Your task to perform on an android device: Open Google Maps and go to "Timeline" Image 0: 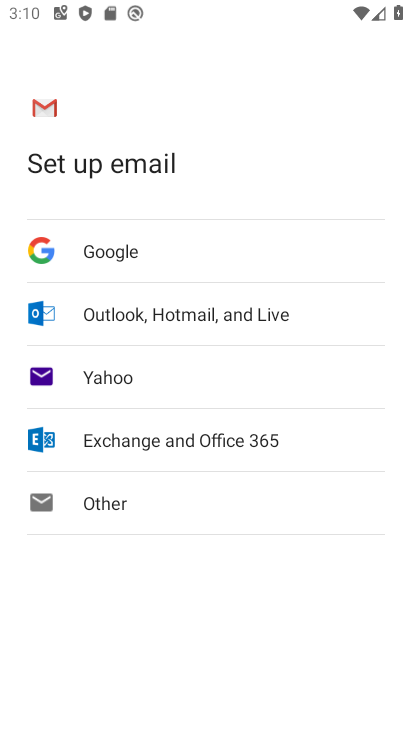
Step 0: press home button
Your task to perform on an android device: Open Google Maps and go to "Timeline" Image 1: 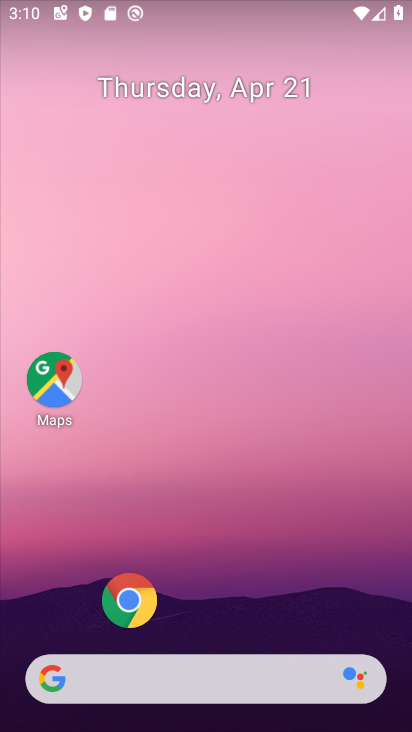
Step 1: click (51, 383)
Your task to perform on an android device: Open Google Maps and go to "Timeline" Image 2: 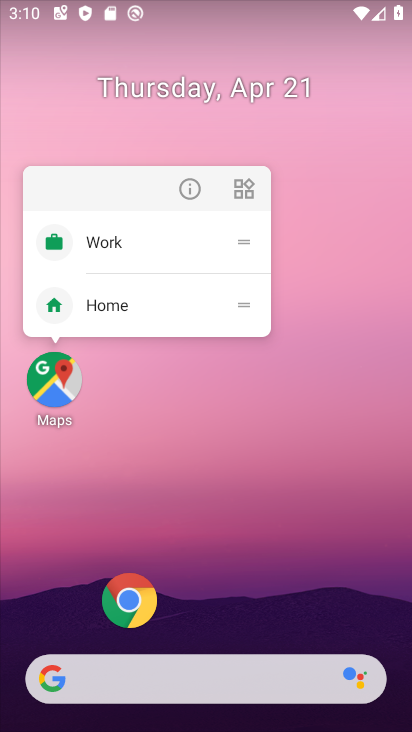
Step 2: click (51, 375)
Your task to perform on an android device: Open Google Maps and go to "Timeline" Image 3: 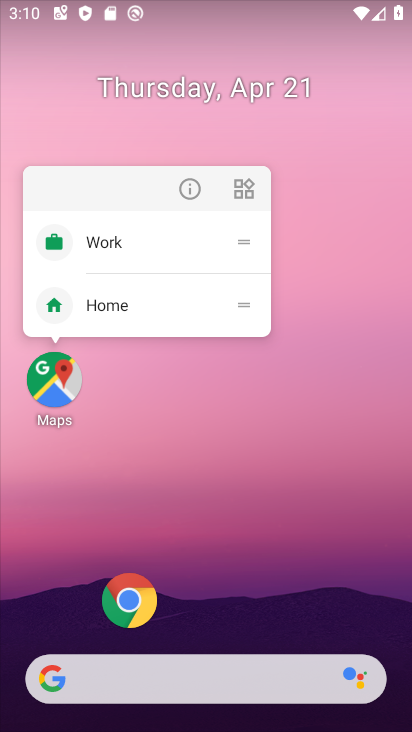
Step 3: click (186, 187)
Your task to perform on an android device: Open Google Maps and go to "Timeline" Image 4: 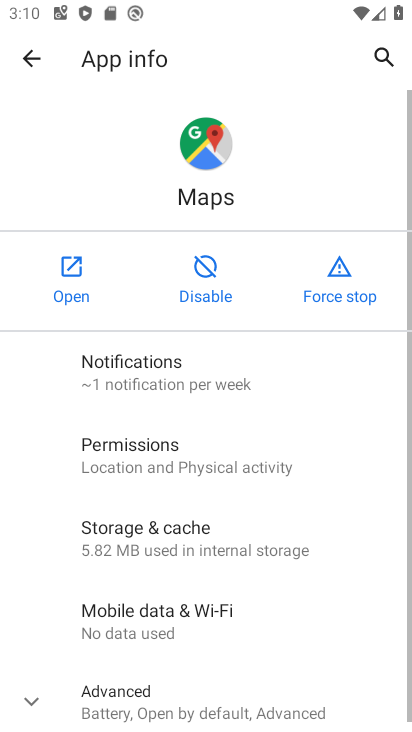
Step 4: click (72, 271)
Your task to perform on an android device: Open Google Maps and go to "Timeline" Image 5: 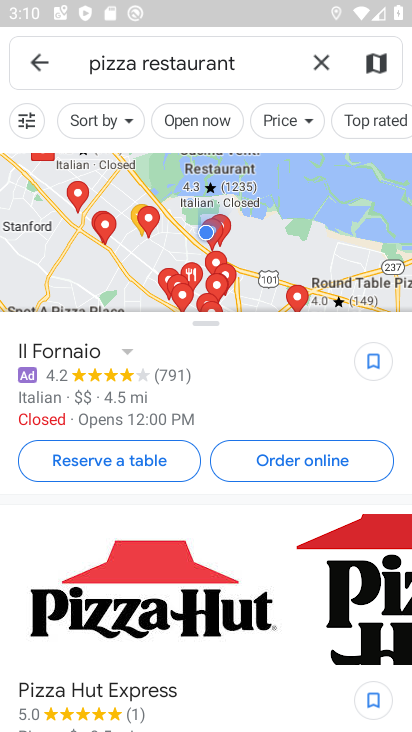
Step 5: click (321, 64)
Your task to perform on an android device: Open Google Maps and go to "Timeline" Image 6: 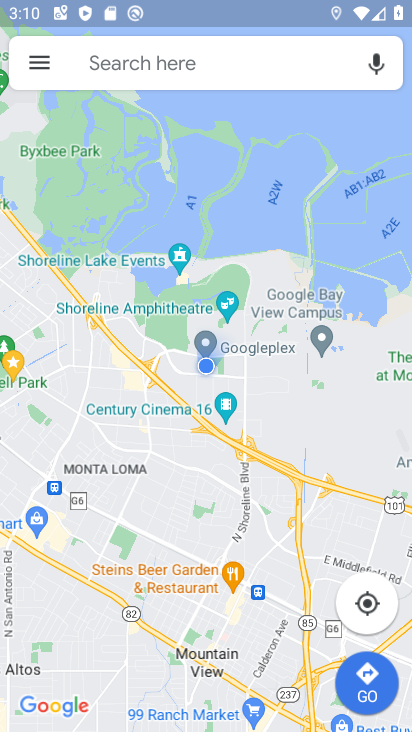
Step 6: click (43, 60)
Your task to perform on an android device: Open Google Maps and go to "Timeline" Image 7: 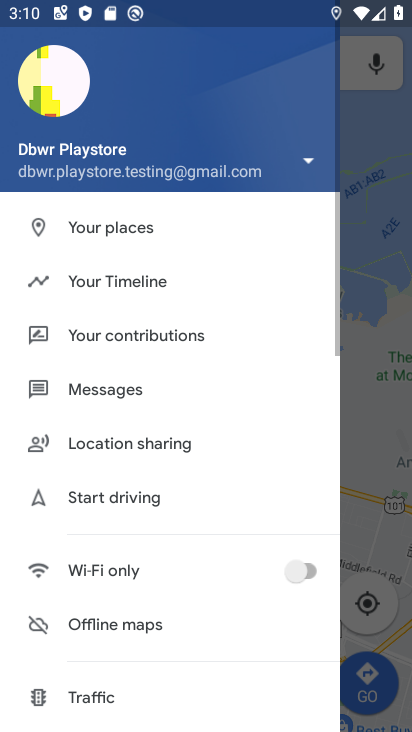
Step 7: click (102, 278)
Your task to perform on an android device: Open Google Maps and go to "Timeline" Image 8: 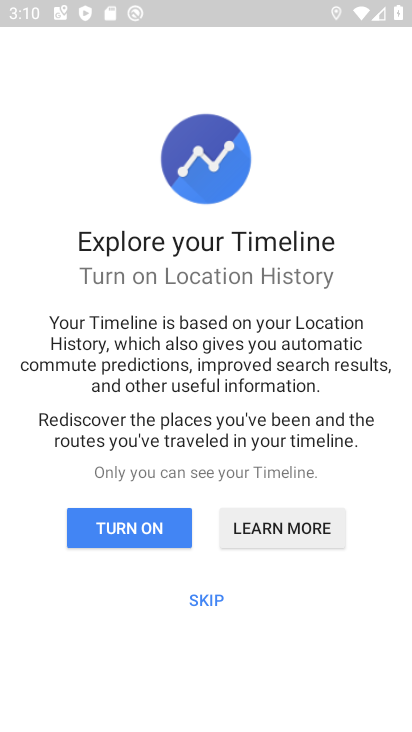
Step 8: click (204, 597)
Your task to perform on an android device: Open Google Maps and go to "Timeline" Image 9: 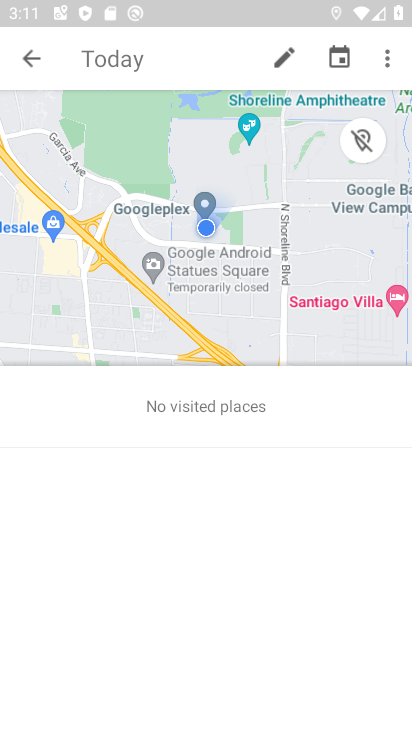
Step 9: task complete